Your task to perform on an android device: Open settings Image 0: 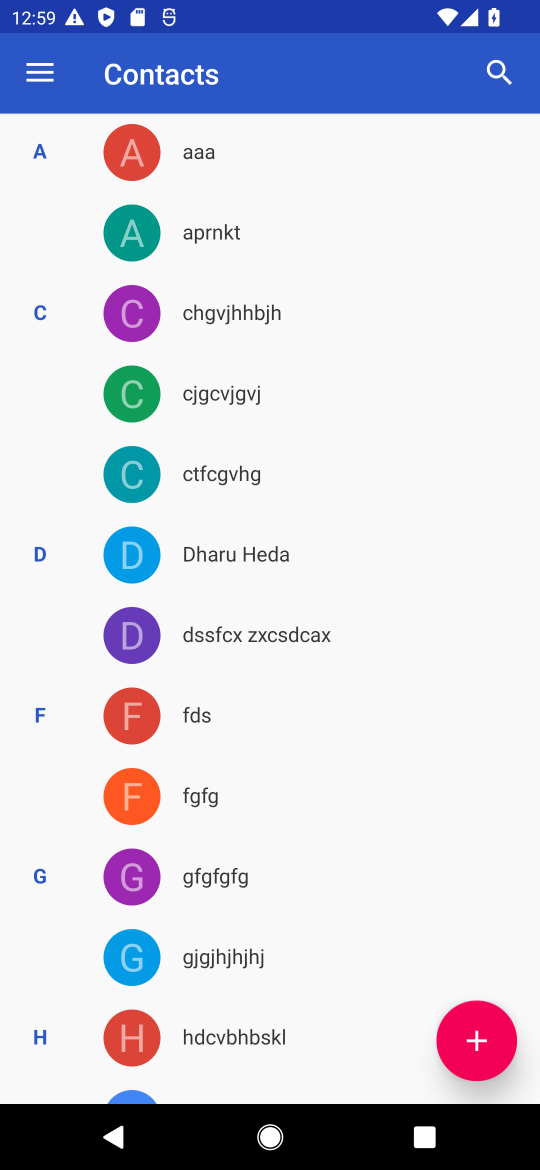
Step 0: press back button
Your task to perform on an android device: Open settings Image 1: 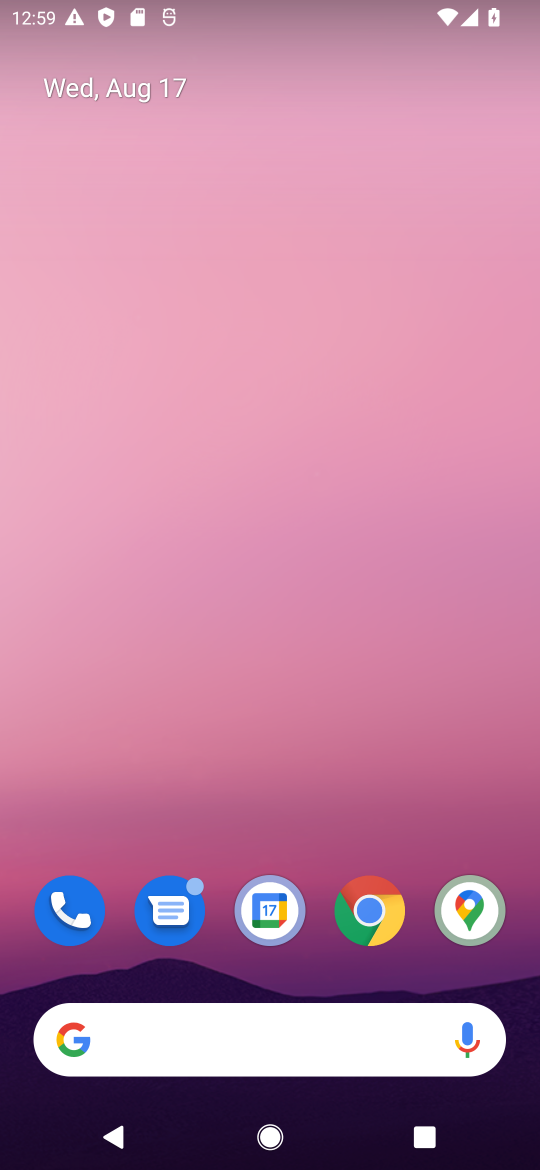
Step 1: drag from (243, 972) to (328, 225)
Your task to perform on an android device: Open settings Image 2: 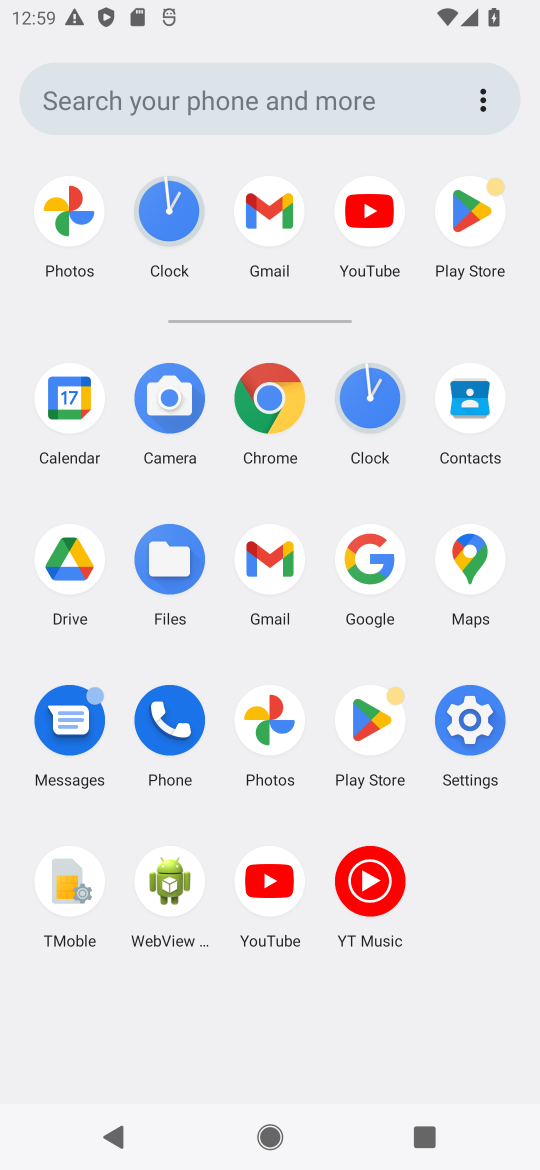
Step 2: click (475, 724)
Your task to perform on an android device: Open settings Image 3: 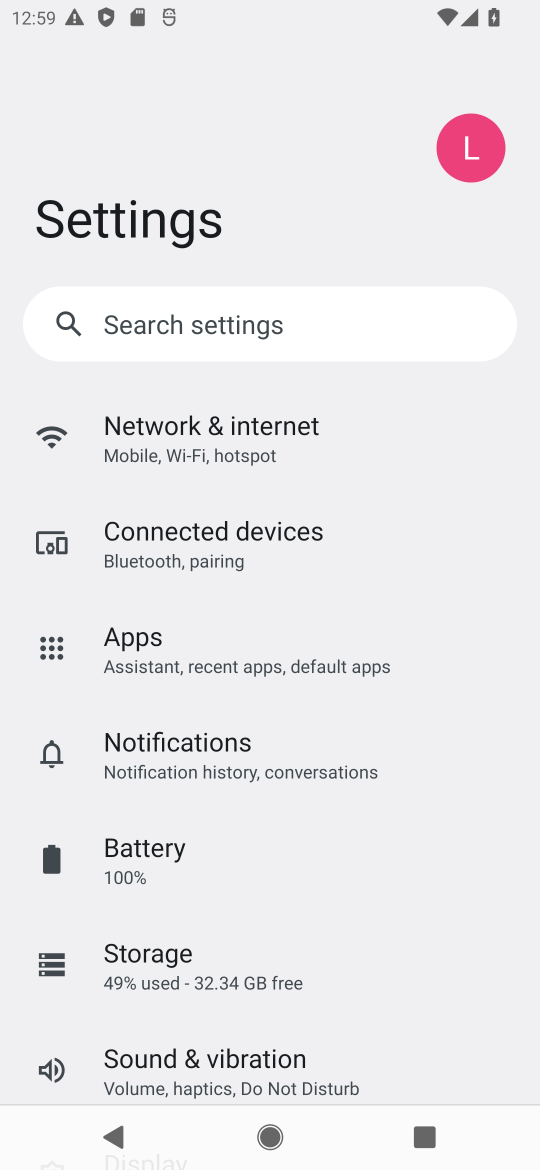
Step 3: task complete